Your task to perform on an android device: turn notification dots off Image 0: 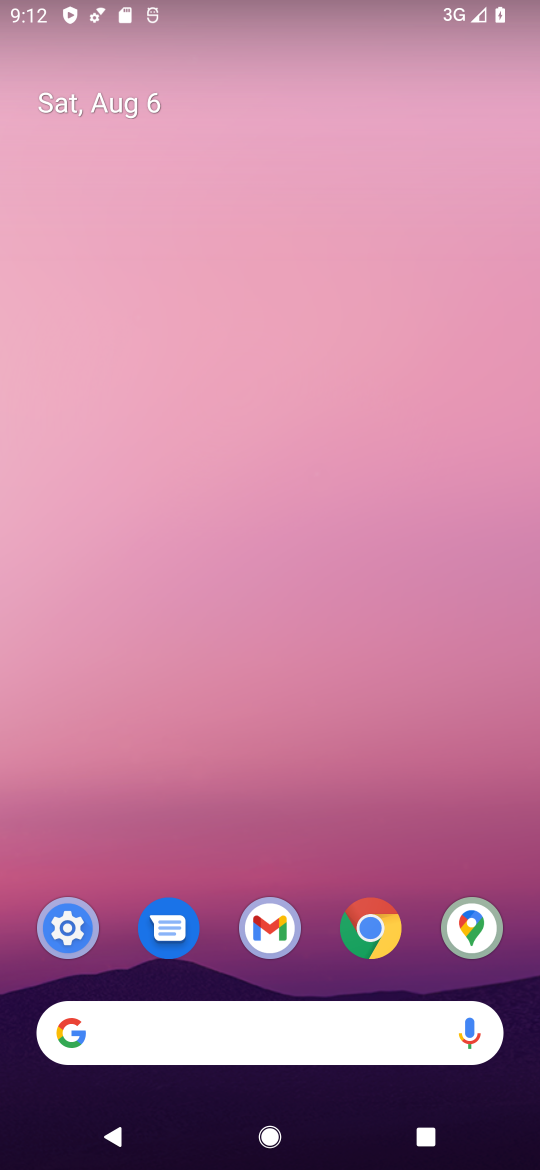
Step 0: drag from (252, 812) to (181, 150)
Your task to perform on an android device: turn notification dots off Image 1: 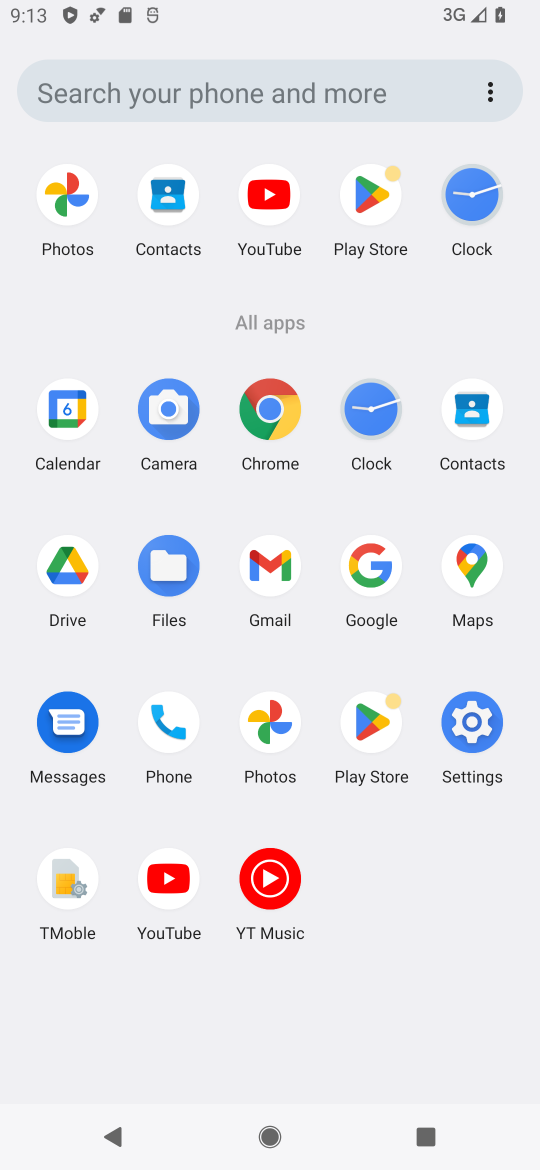
Step 1: click (466, 721)
Your task to perform on an android device: turn notification dots off Image 2: 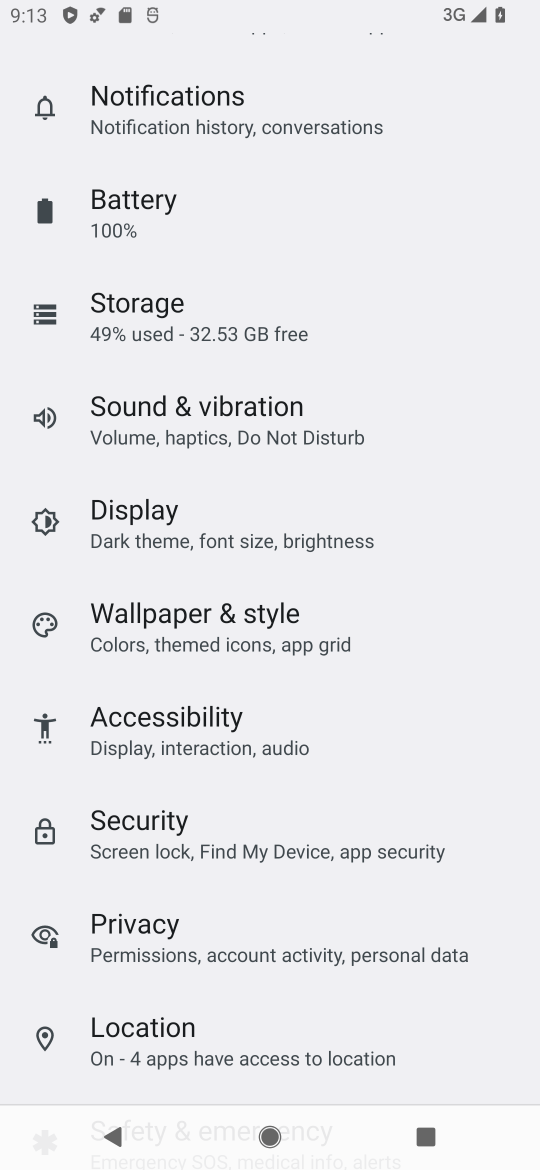
Step 2: click (175, 95)
Your task to perform on an android device: turn notification dots off Image 3: 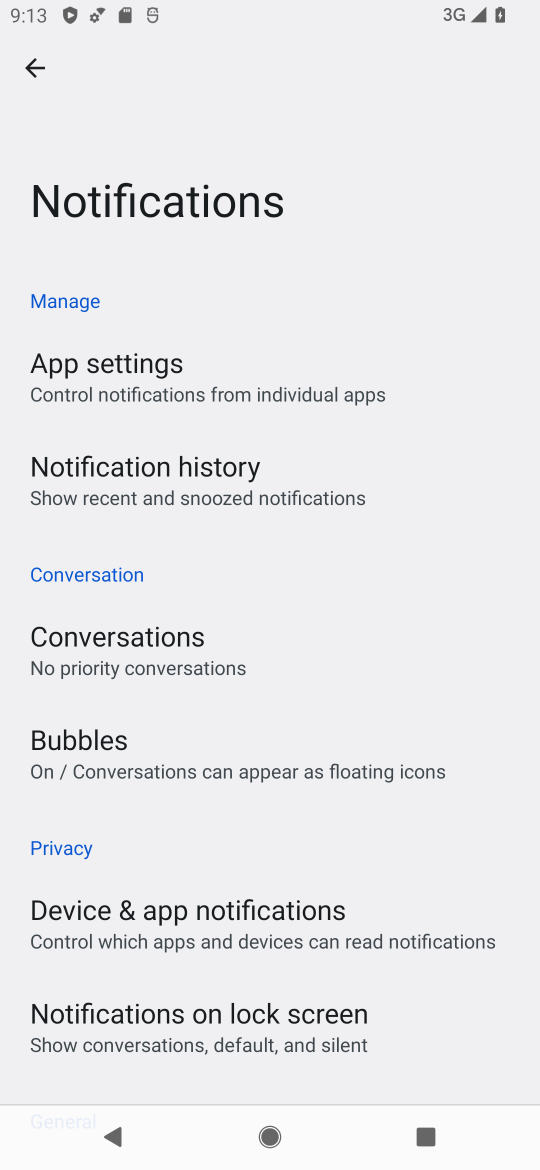
Step 3: drag from (358, 976) to (265, 425)
Your task to perform on an android device: turn notification dots off Image 4: 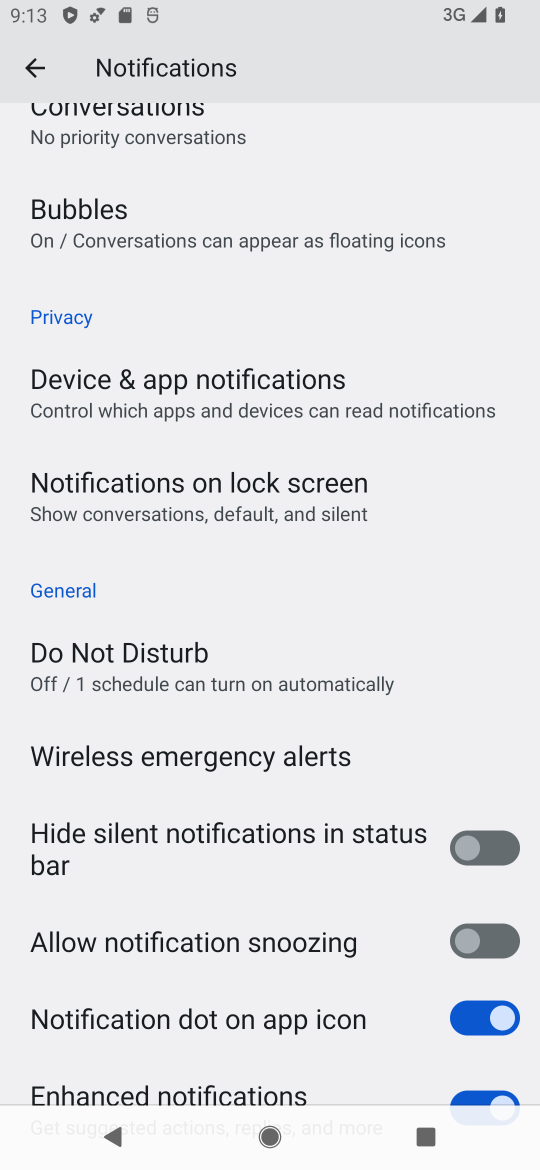
Step 4: click (507, 1020)
Your task to perform on an android device: turn notification dots off Image 5: 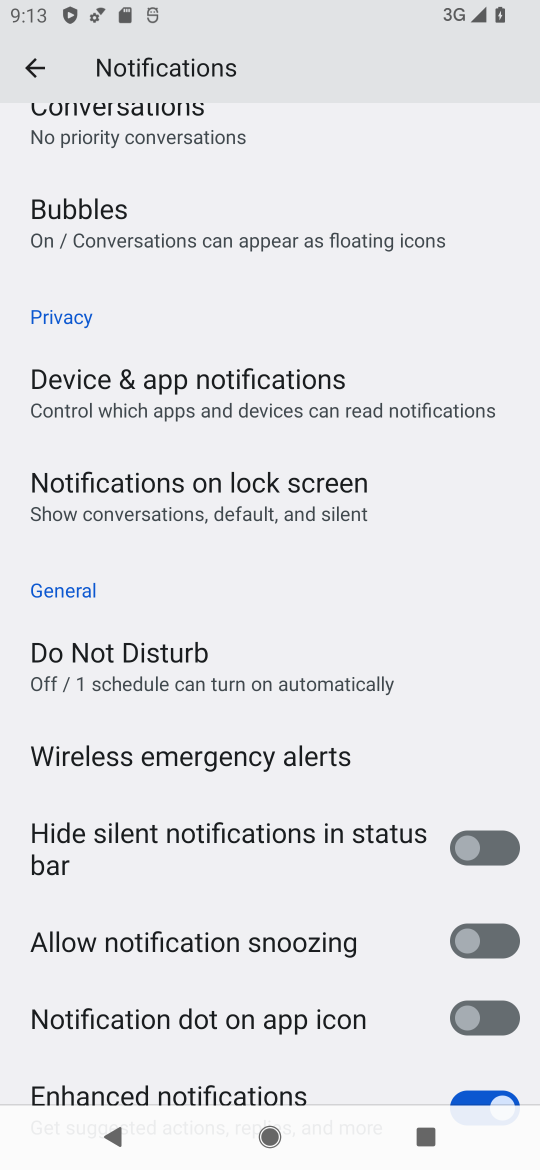
Step 5: task complete